Your task to perform on an android device: Open Chrome and go to the settings page Image 0: 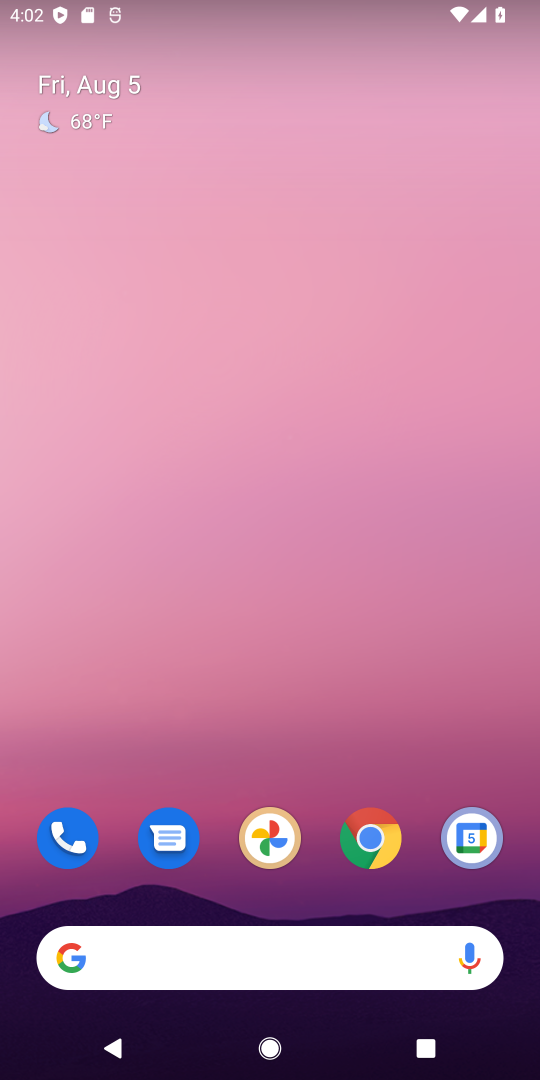
Step 0: drag from (238, 810) to (257, 175)
Your task to perform on an android device: Open Chrome and go to the settings page Image 1: 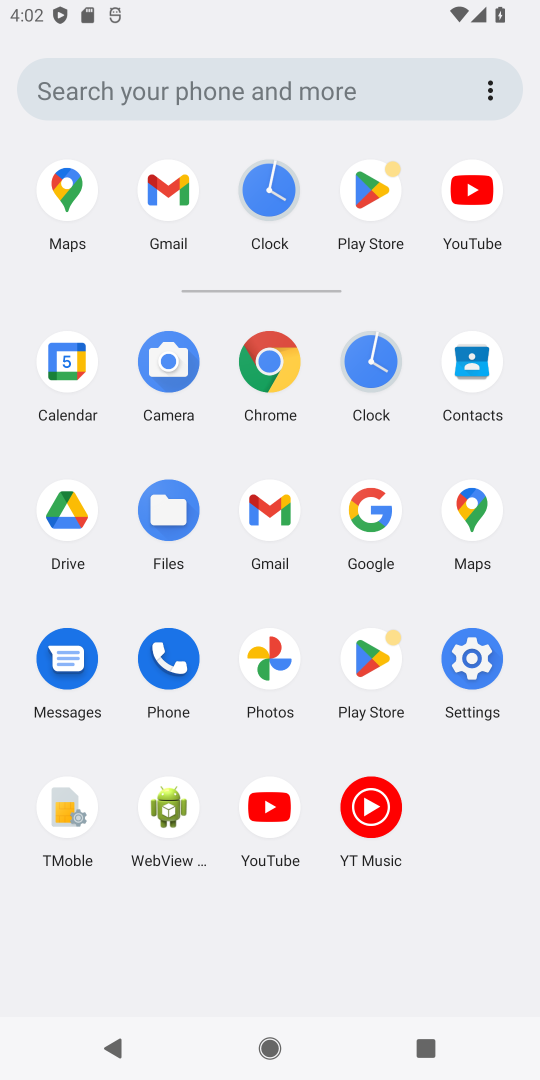
Step 1: click (369, 510)
Your task to perform on an android device: Open Chrome and go to the settings page Image 2: 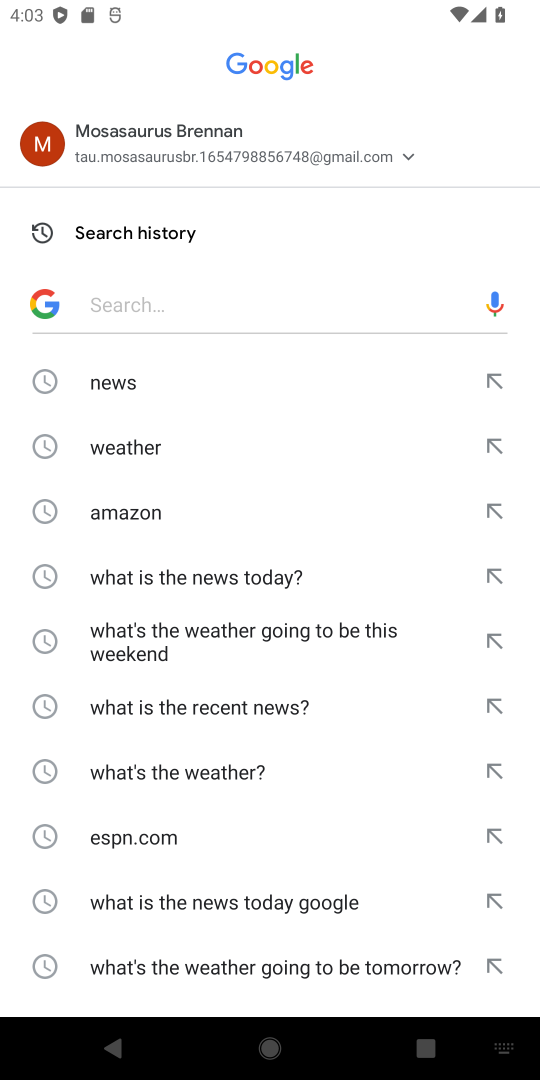
Step 2: click (72, 147)
Your task to perform on an android device: Open Chrome and go to the settings page Image 3: 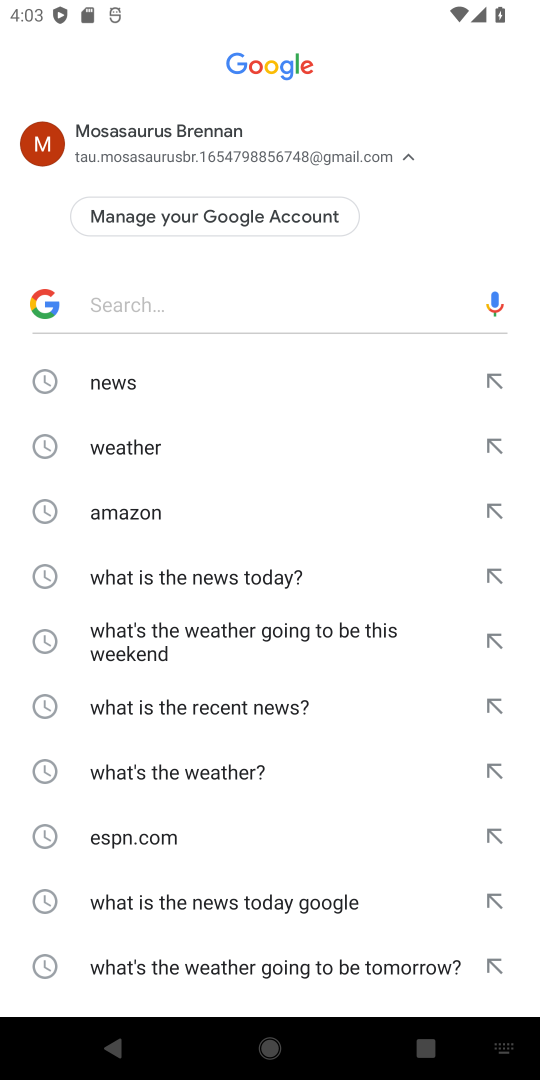
Step 3: press back button
Your task to perform on an android device: Open Chrome and go to the settings page Image 4: 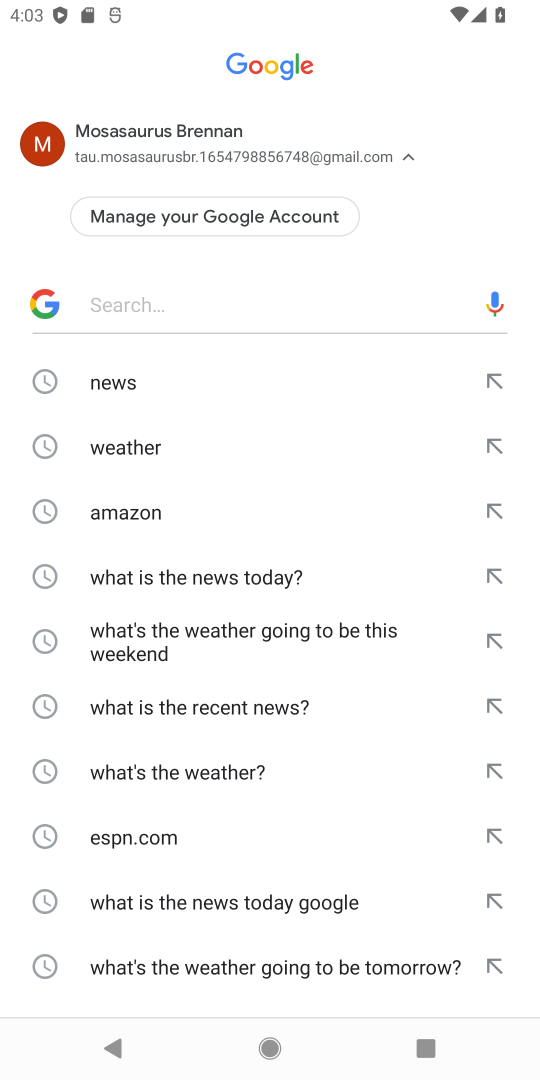
Step 4: press back button
Your task to perform on an android device: Open Chrome and go to the settings page Image 5: 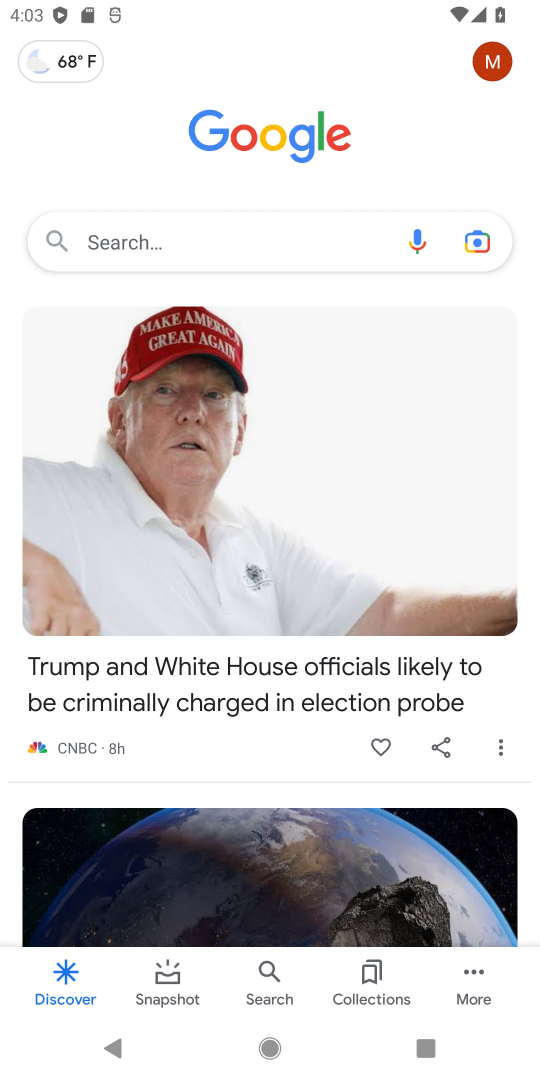
Step 5: press home button
Your task to perform on an android device: Open Chrome and go to the settings page Image 6: 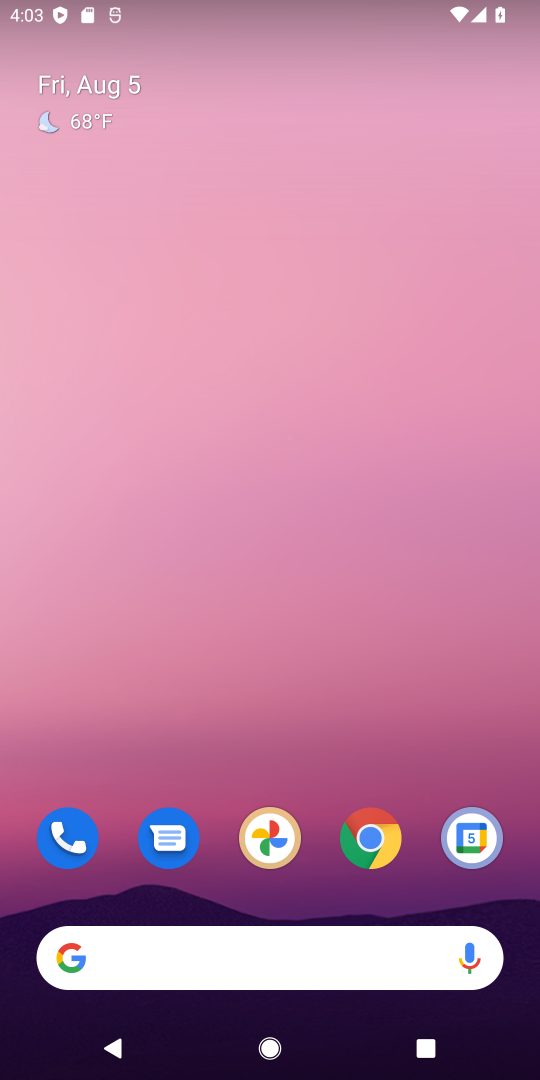
Step 6: drag from (175, 944) to (292, 3)
Your task to perform on an android device: Open Chrome and go to the settings page Image 7: 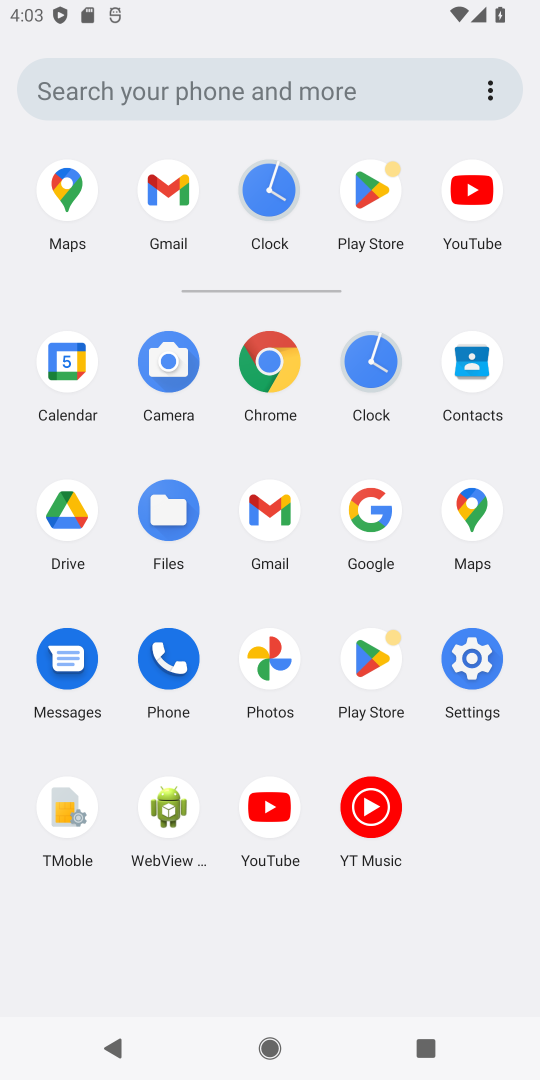
Step 7: click (282, 345)
Your task to perform on an android device: Open Chrome and go to the settings page Image 8: 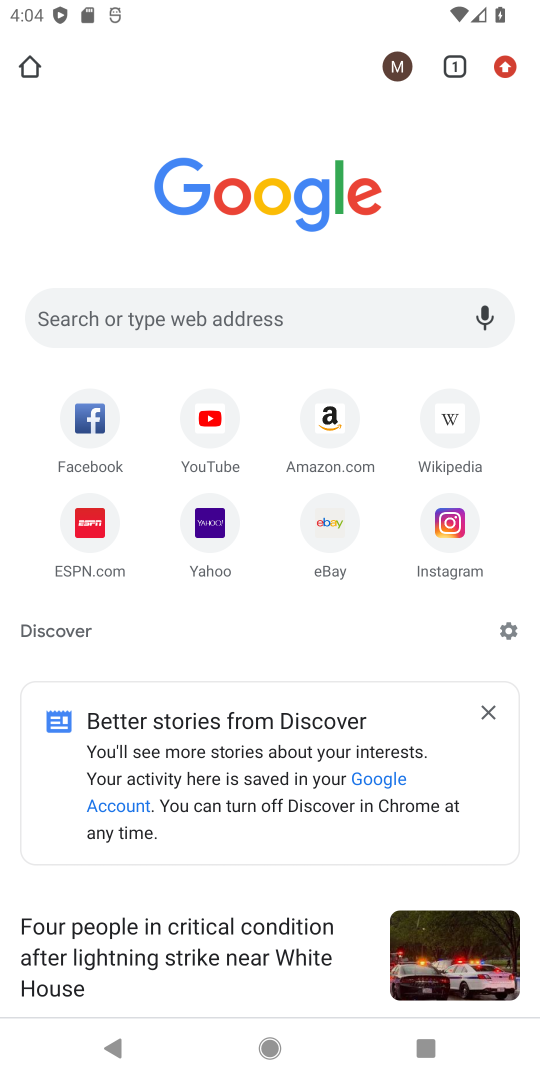
Step 8: click (505, 62)
Your task to perform on an android device: Open Chrome and go to the settings page Image 9: 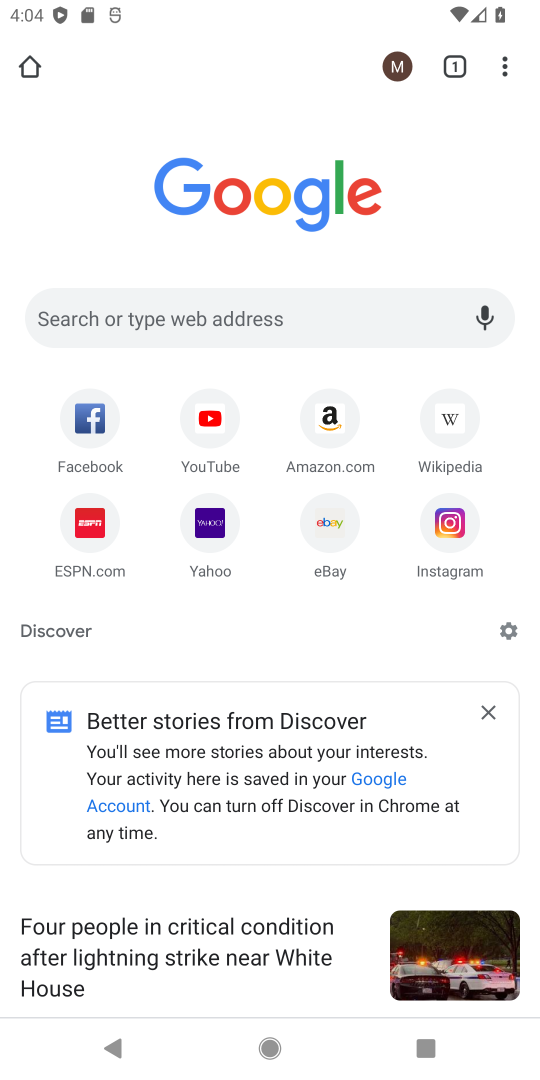
Step 9: click (510, 65)
Your task to perform on an android device: Open Chrome and go to the settings page Image 10: 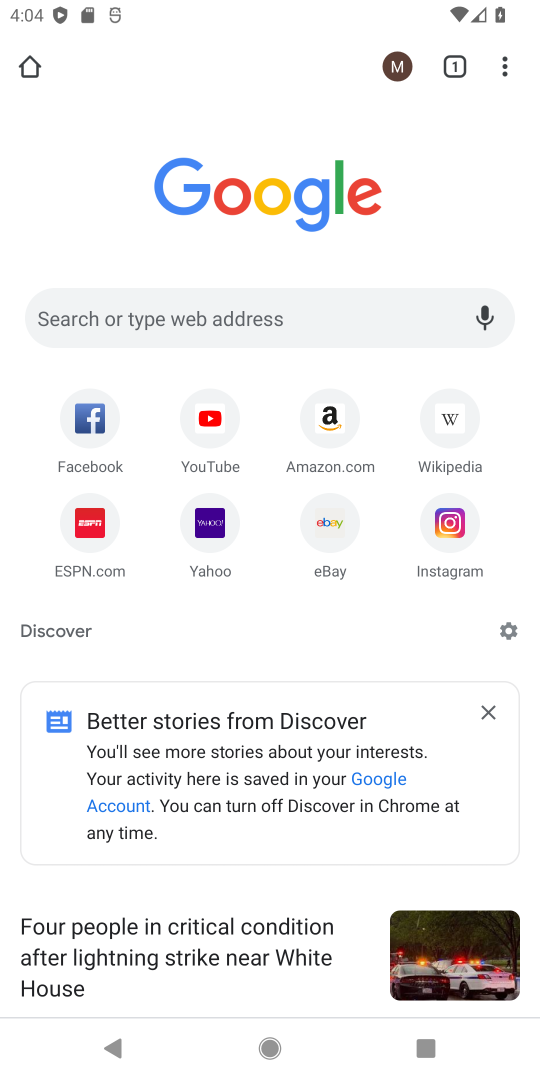
Step 10: click (492, 67)
Your task to perform on an android device: Open Chrome and go to the settings page Image 11: 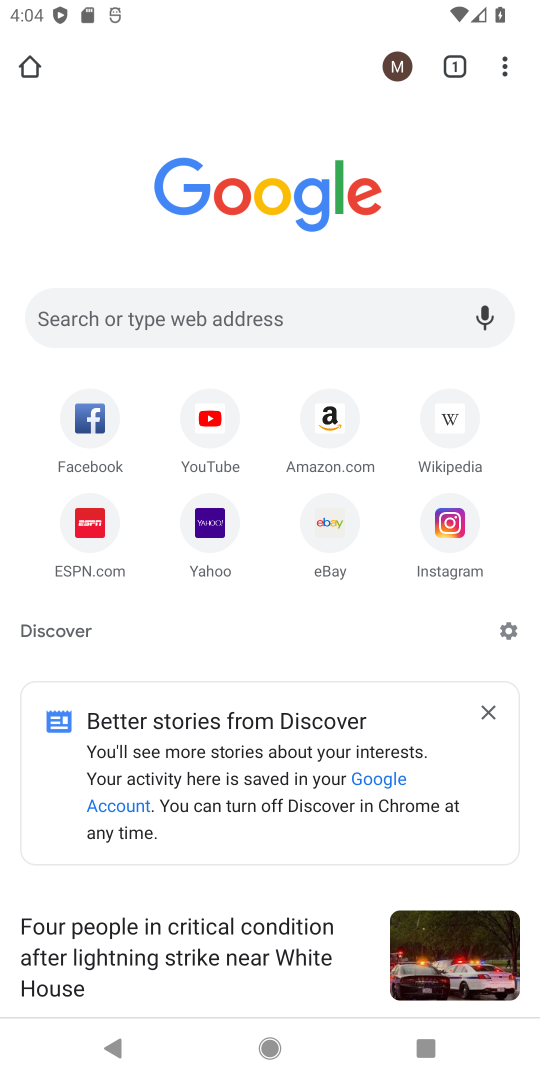
Step 11: click (503, 52)
Your task to perform on an android device: Open Chrome and go to the settings page Image 12: 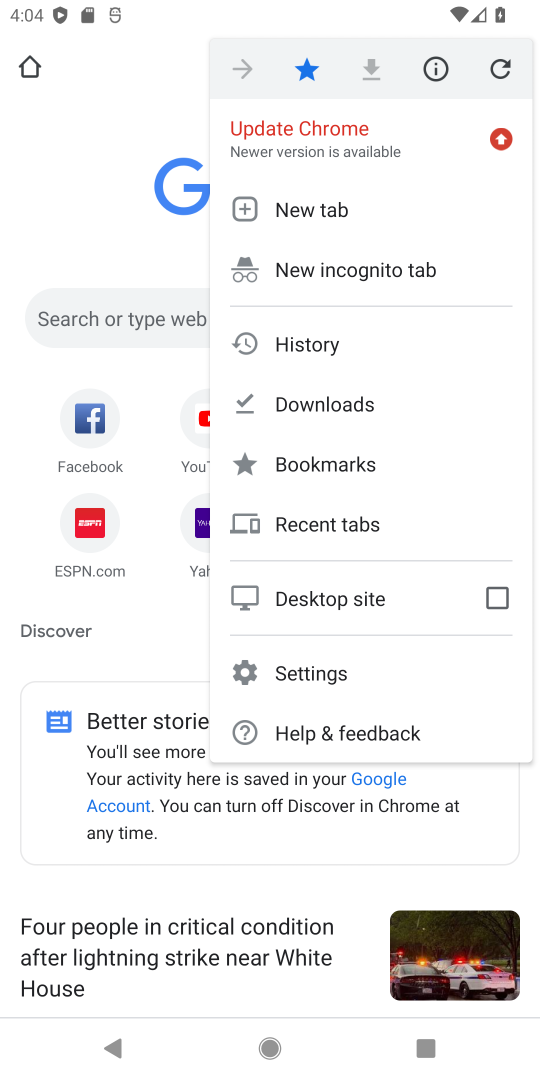
Step 12: click (334, 666)
Your task to perform on an android device: Open Chrome and go to the settings page Image 13: 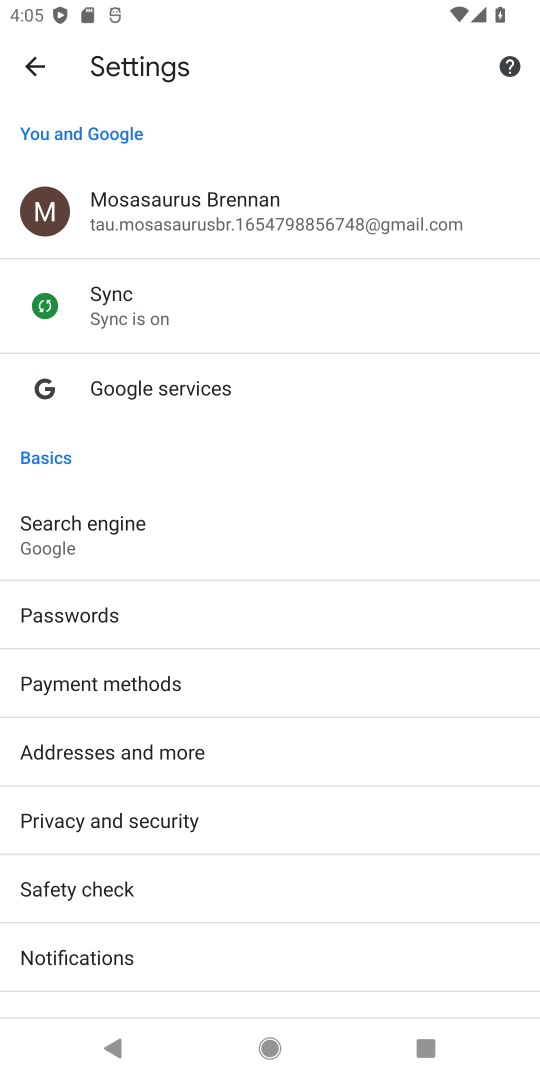
Step 13: task complete